Your task to perform on an android device: Open the calendar app, open the side menu, and click the "Day" option Image 0: 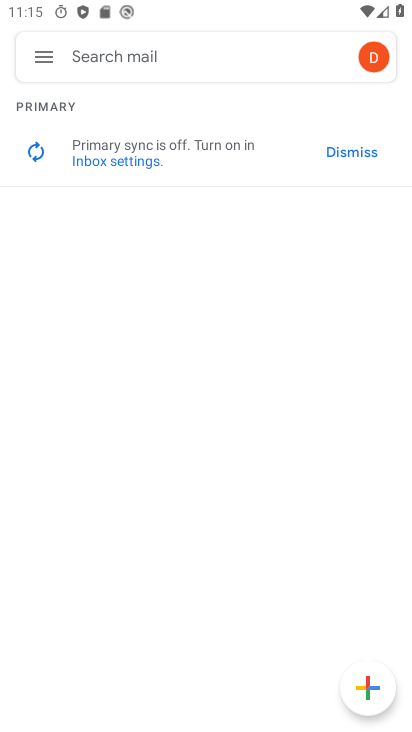
Step 0: press home button
Your task to perform on an android device: Open the calendar app, open the side menu, and click the "Day" option Image 1: 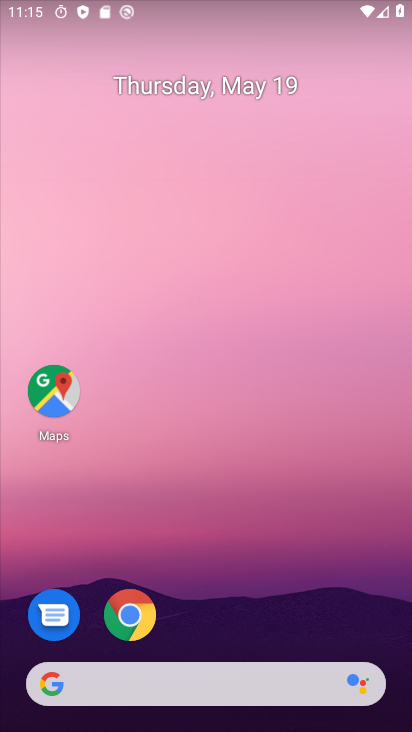
Step 1: drag from (274, 614) to (237, 99)
Your task to perform on an android device: Open the calendar app, open the side menu, and click the "Day" option Image 2: 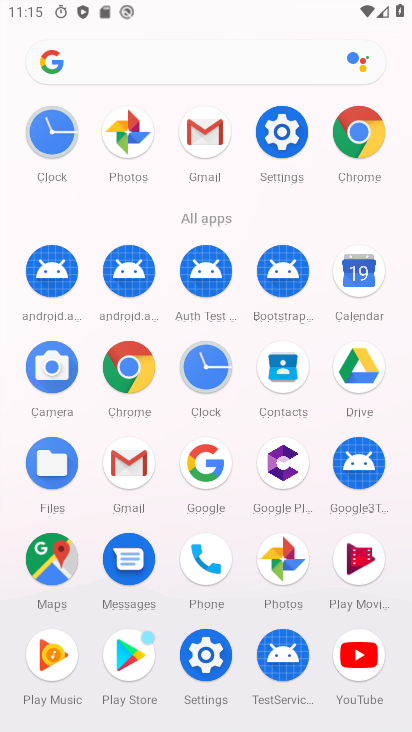
Step 2: click (365, 277)
Your task to perform on an android device: Open the calendar app, open the side menu, and click the "Day" option Image 3: 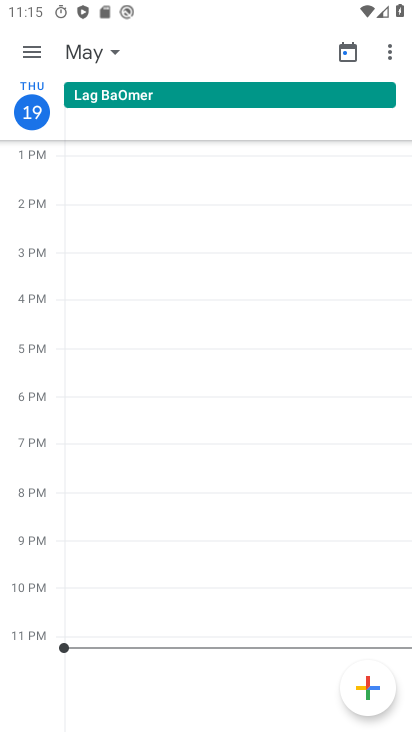
Step 3: click (27, 46)
Your task to perform on an android device: Open the calendar app, open the side menu, and click the "Day" option Image 4: 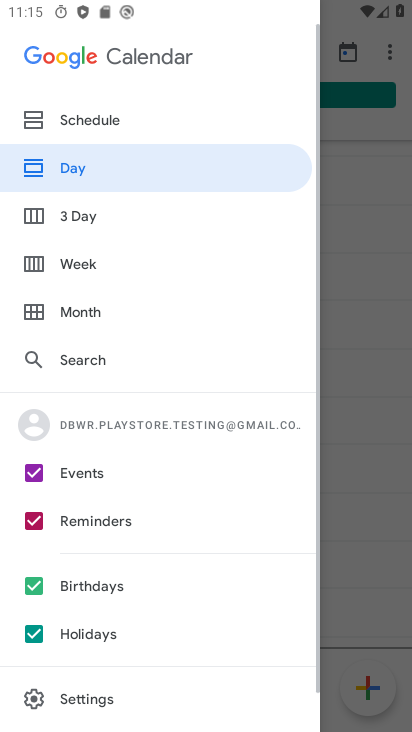
Step 4: click (72, 176)
Your task to perform on an android device: Open the calendar app, open the side menu, and click the "Day" option Image 5: 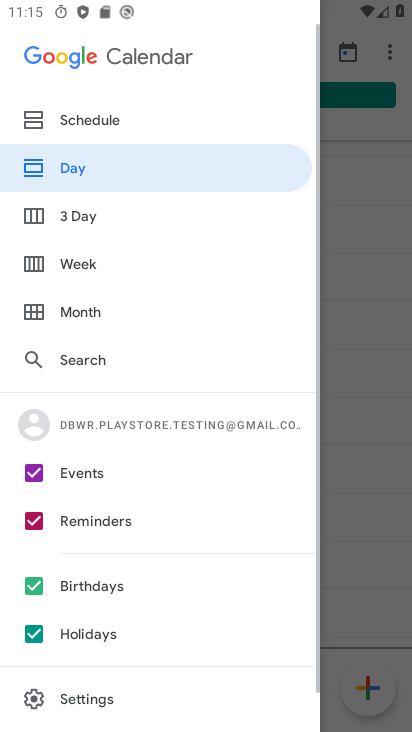
Step 5: task complete